Your task to perform on an android device: allow notifications from all sites in the chrome app Image 0: 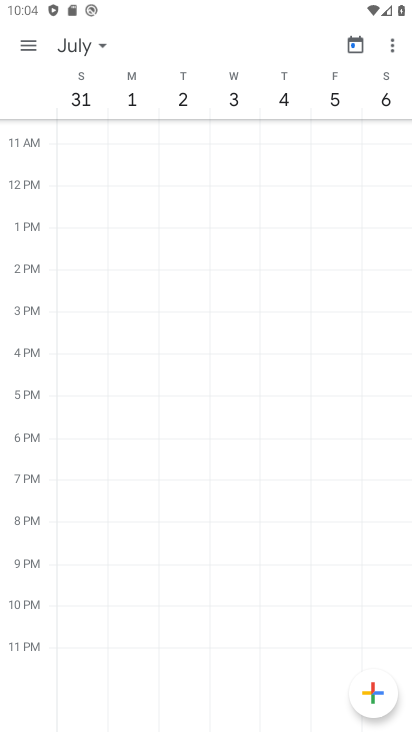
Step 0: press home button
Your task to perform on an android device: allow notifications from all sites in the chrome app Image 1: 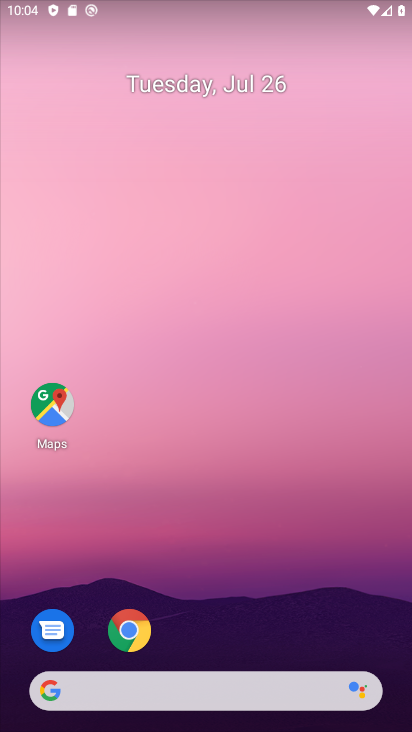
Step 1: click (129, 633)
Your task to perform on an android device: allow notifications from all sites in the chrome app Image 2: 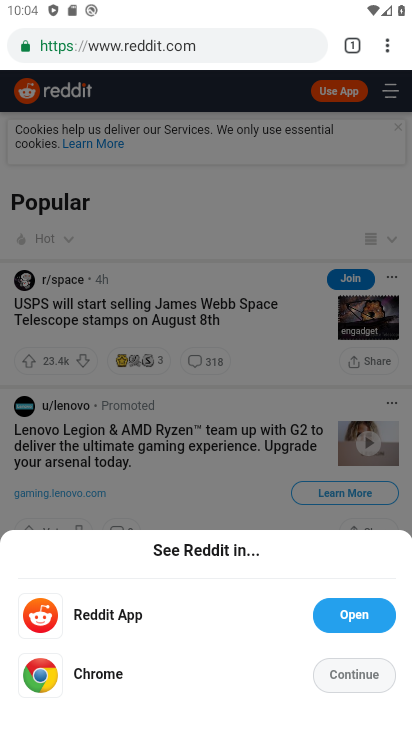
Step 2: click (384, 50)
Your task to perform on an android device: allow notifications from all sites in the chrome app Image 3: 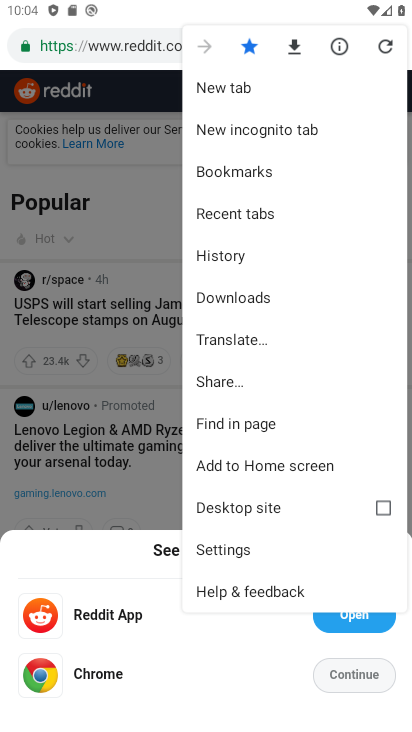
Step 3: click (223, 549)
Your task to perform on an android device: allow notifications from all sites in the chrome app Image 4: 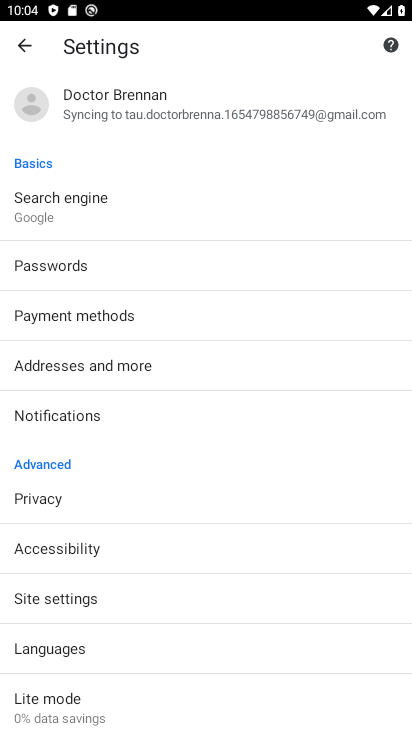
Step 4: click (51, 600)
Your task to perform on an android device: allow notifications from all sites in the chrome app Image 5: 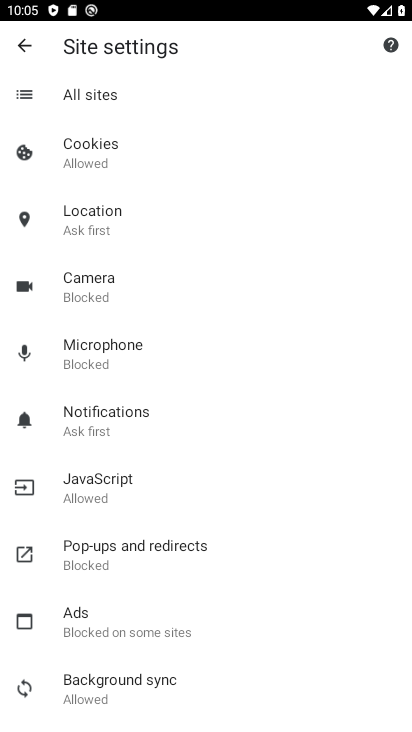
Step 5: click (101, 418)
Your task to perform on an android device: allow notifications from all sites in the chrome app Image 6: 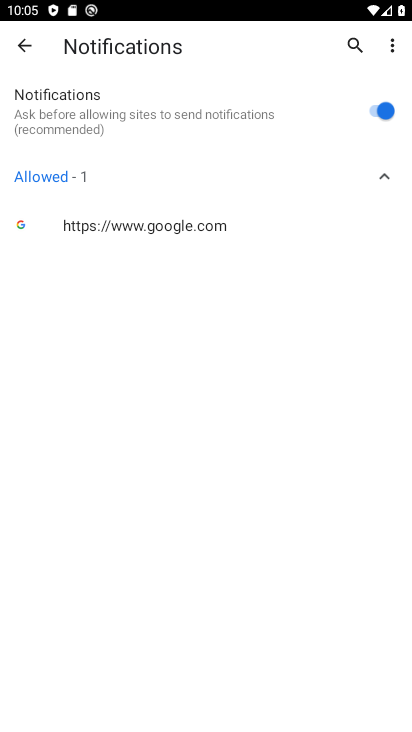
Step 6: task complete